Your task to perform on an android device: turn on translation in the chrome app Image 0: 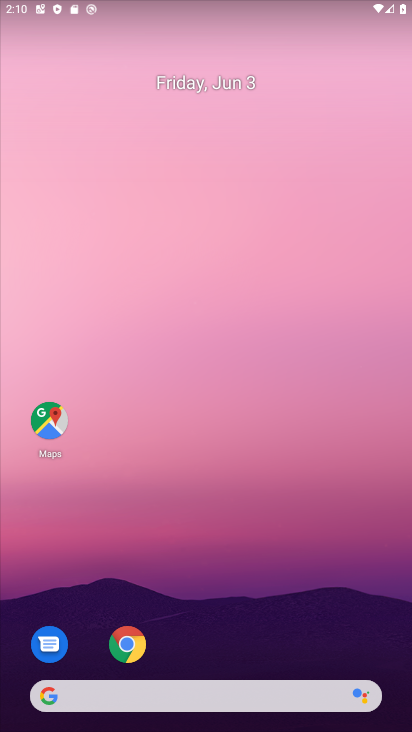
Step 0: click (130, 637)
Your task to perform on an android device: turn on translation in the chrome app Image 1: 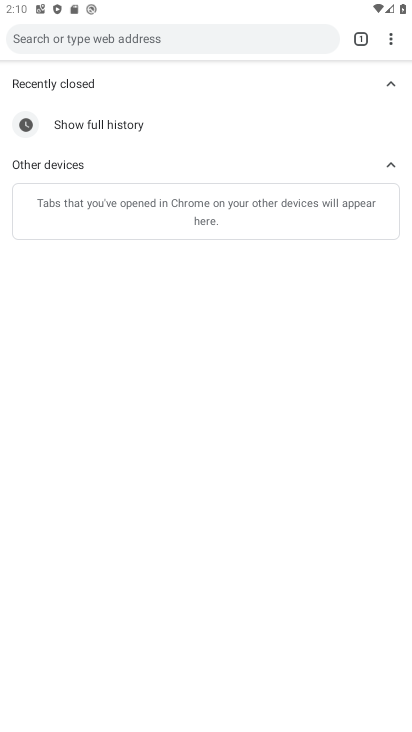
Step 1: click (388, 39)
Your task to perform on an android device: turn on translation in the chrome app Image 2: 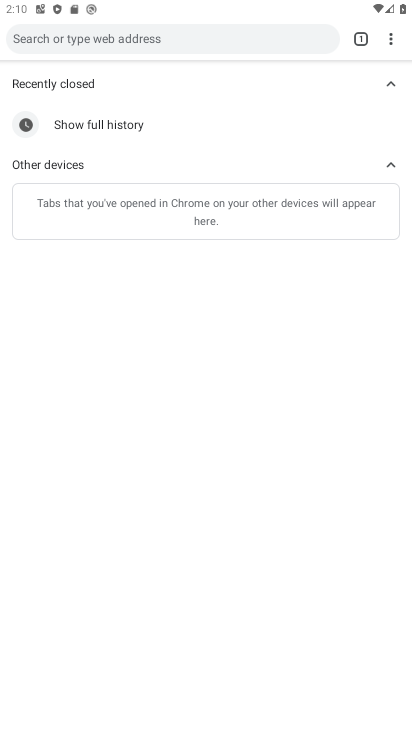
Step 2: drag from (390, 35) to (274, 331)
Your task to perform on an android device: turn on translation in the chrome app Image 3: 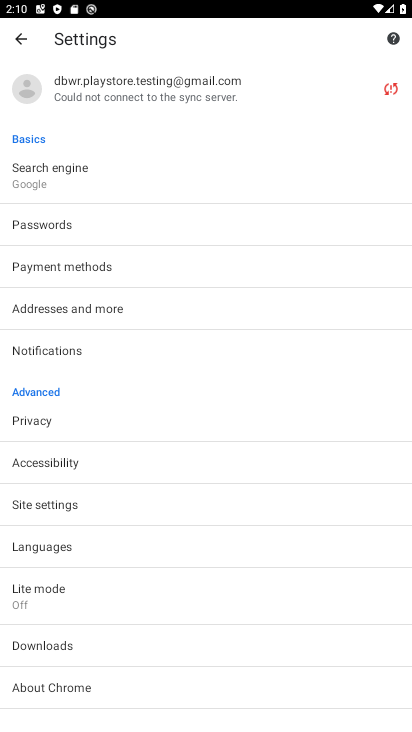
Step 3: click (112, 543)
Your task to perform on an android device: turn on translation in the chrome app Image 4: 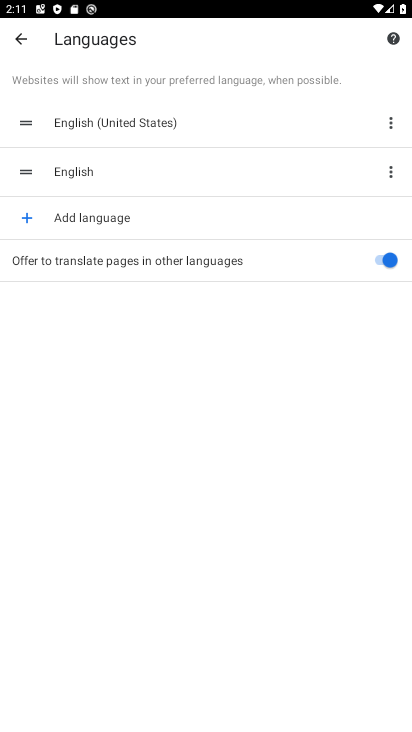
Step 4: task complete